Your task to perform on an android device: choose inbox layout in the gmail app Image 0: 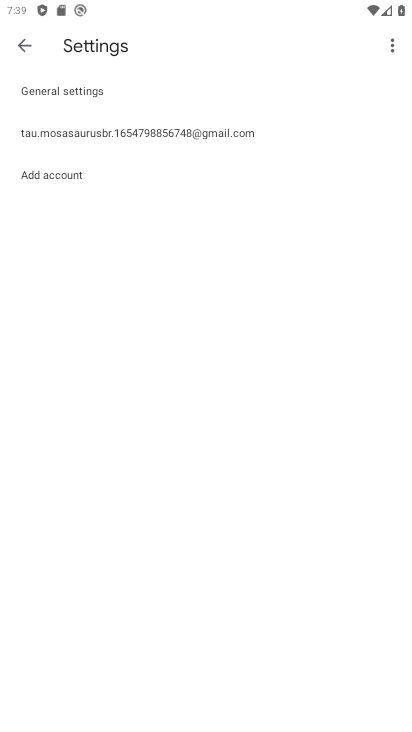
Step 0: press home button
Your task to perform on an android device: choose inbox layout in the gmail app Image 1: 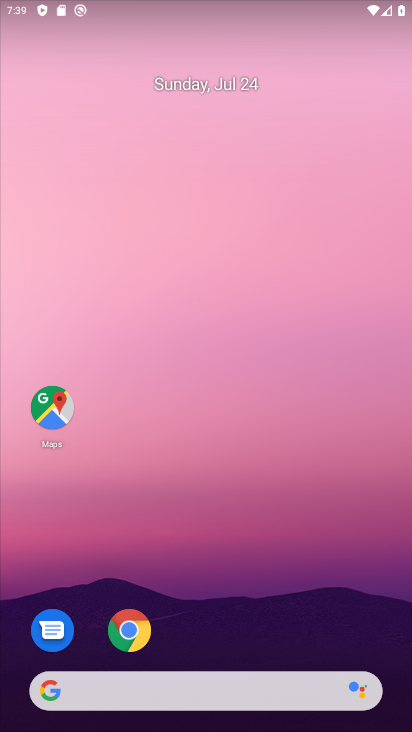
Step 1: drag from (257, 645) to (232, 154)
Your task to perform on an android device: choose inbox layout in the gmail app Image 2: 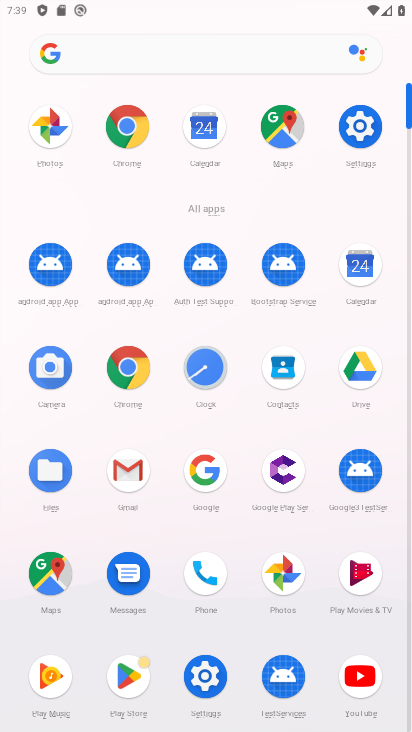
Step 2: click (134, 483)
Your task to perform on an android device: choose inbox layout in the gmail app Image 3: 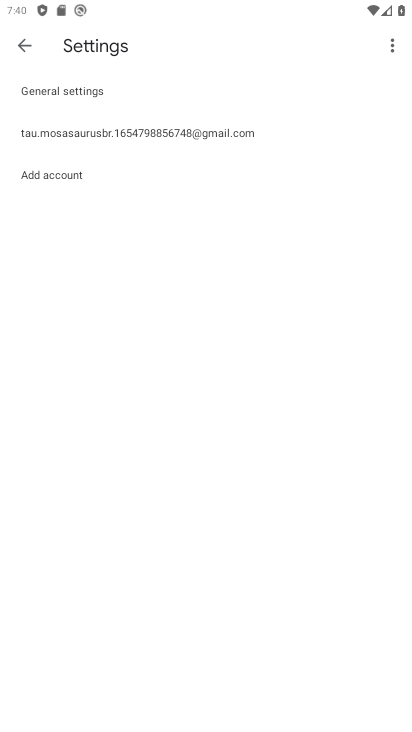
Step 3: click (71, 132)
Your task to perform on an android device: choose inbox layout in the gmail app Image 4: 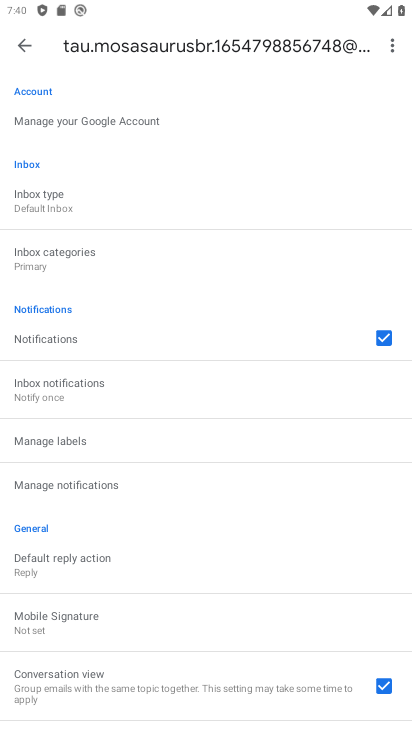
Step 4: click (100, 201)
Your task to perform on an android device: choose inbox layout in the gmail app Image 5: 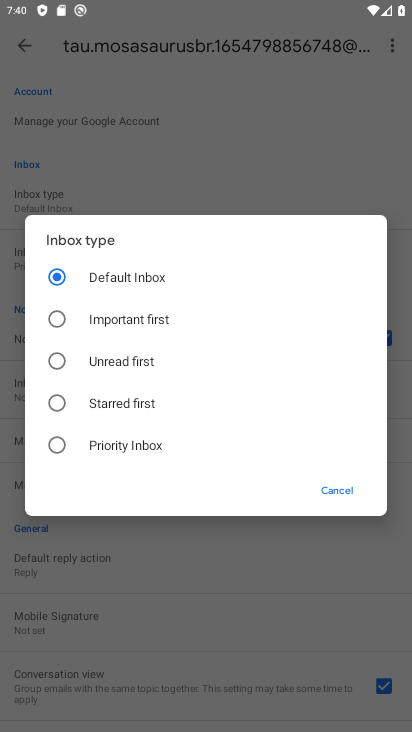
Step 5: click (121, 441)
Your task to perform on an android device: choose inbox layout in the gmail app Image 6: 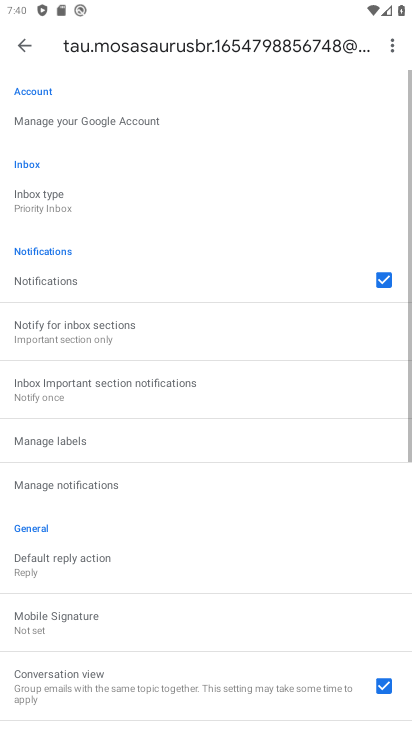
Step 6: task complete